Your task to perform on an android device: Show me productivity apps on the Play Store Image 0: 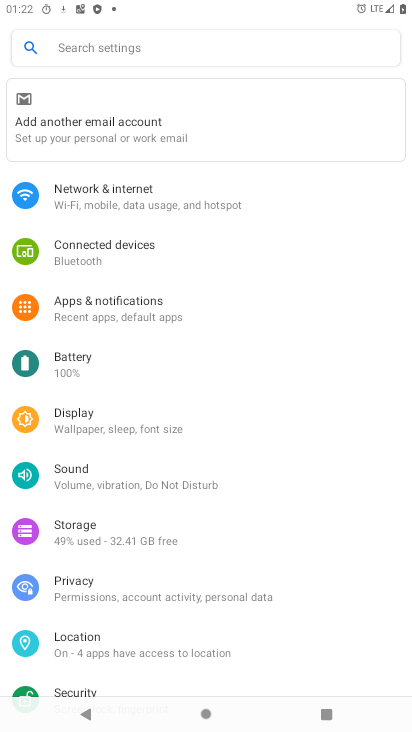
Step 0: press home button
Your task to perform on an android device: Show me productivity apps on the Play Store Image 1: 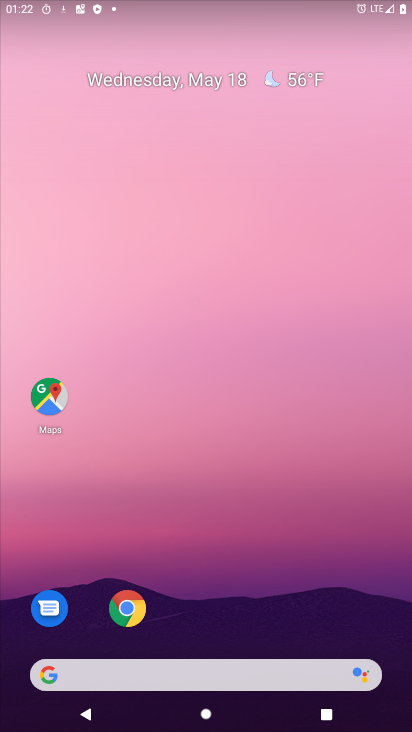
Step 1: drag from (236, 689) to (343, 216)
Your task to perform on an android device: Show me productivity apps on the Play Store Image 2: 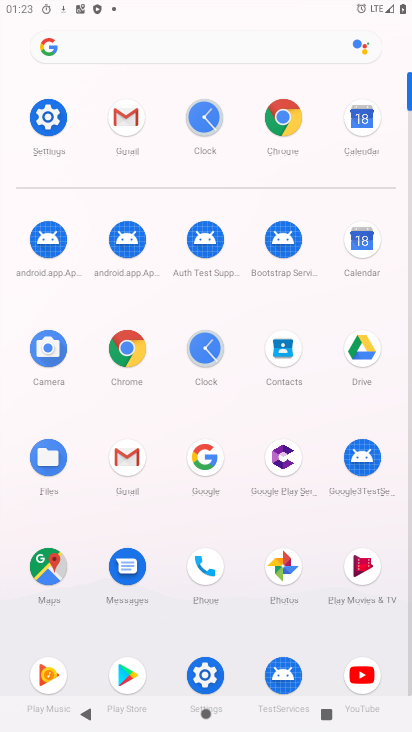
Step 2: click (110, 663)
Your task to perform on an android device: Show me productivity apps on the Play Store Image 3: 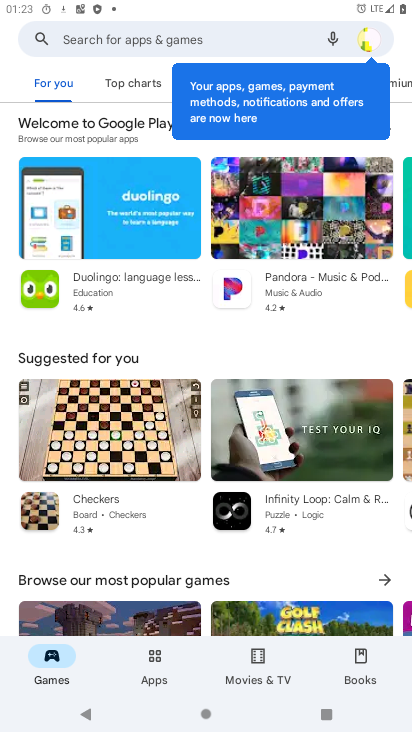
Step 3: click (119, 51)
Your task to perform on an android device: Show me productivity apps on the Play Store Image 4: 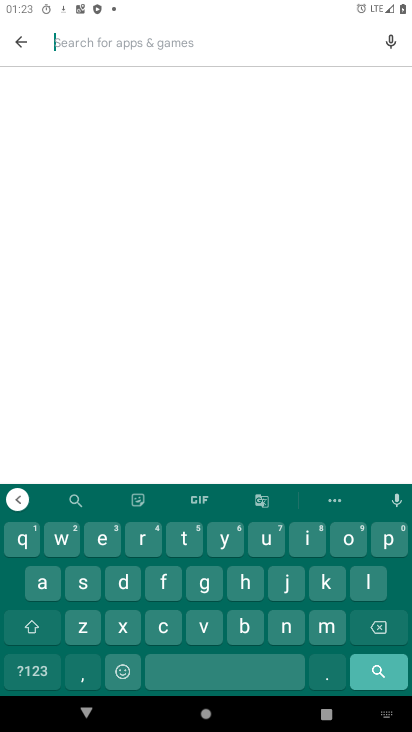
Step 4: click (393, 531)
Your task to perform on an android device: Show me productivity apps on the Play Store Image 5: 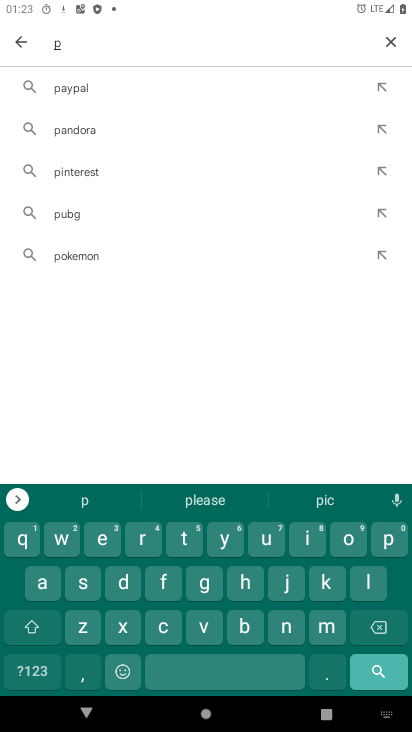
Step 5: click (147, 540)
Your task to perform on an android device: Show me productivity apps on the Play Store Image 6: 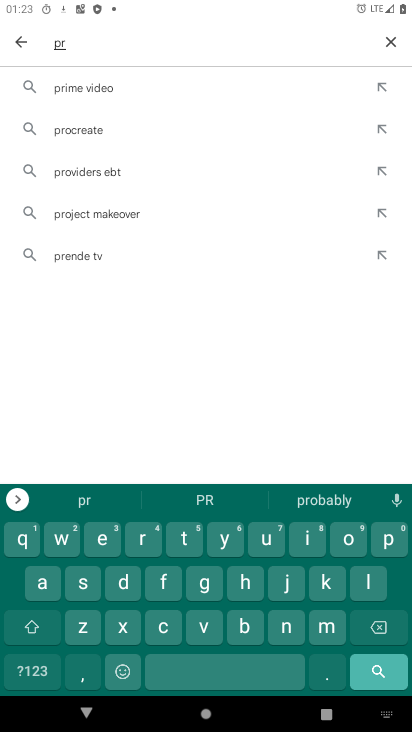
Step 6: click (345, 534)
Your task to perform on an android device: Show me productivity apps on the Play Store Image 7: 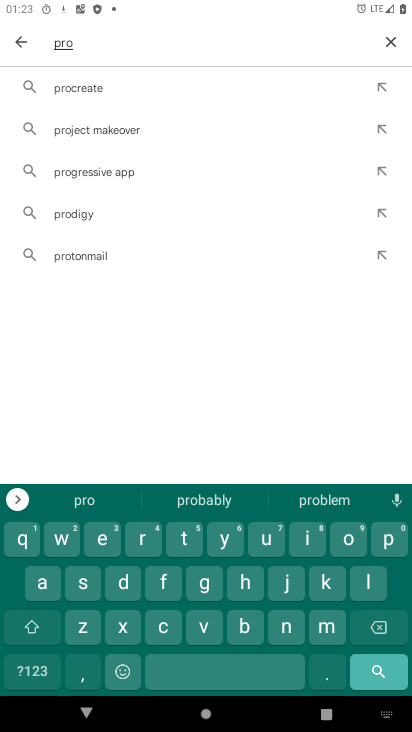
Step 7: click (117, 588)
Your task to perform on an android device: Show me productivity apps on the Play Store Image 8: 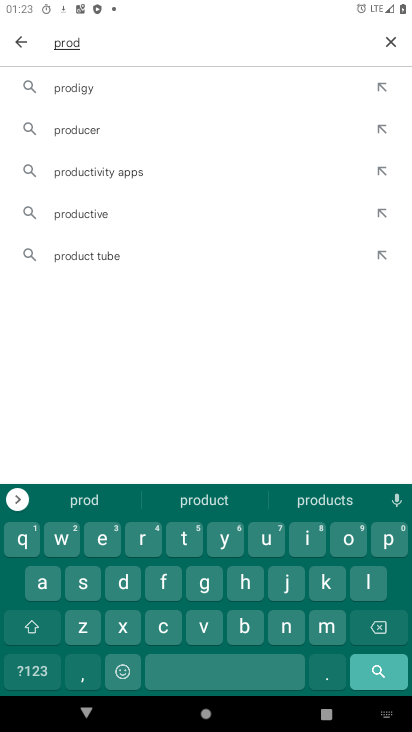
Step 8: click (261, 539)
Your task to perform on an android device: Show me productivity apps on the Play Store Image 9: 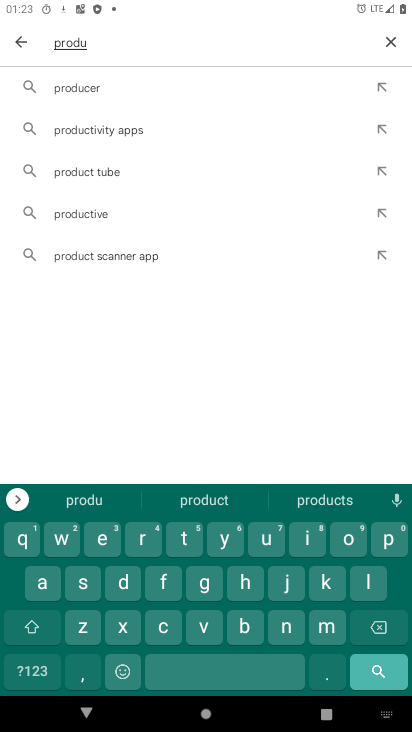
Step 9: click (162, 126)
Your task to perform on an android device: Show me productivity apps on the Play Store Image 10: 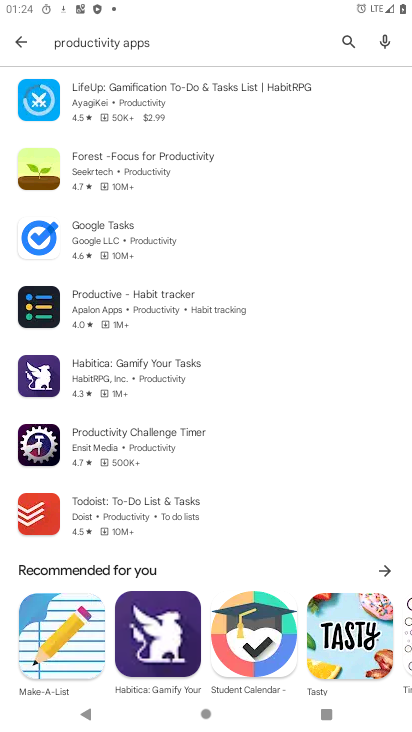
Step 10: task complete